Your task to perform on an android device: open app "Move to iOS" (install if not already installed) Image 0: 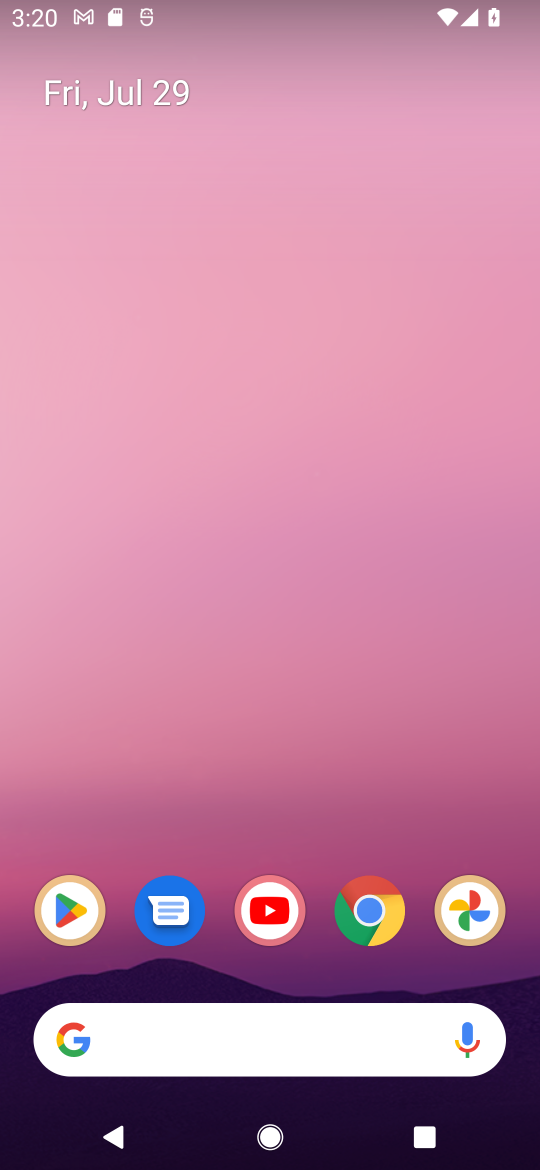
Step 0: drag from (287, 957) to (230, 213)
Your task to perform on an android device: open app "Move to iOS" (install if not already installed) Image 1: 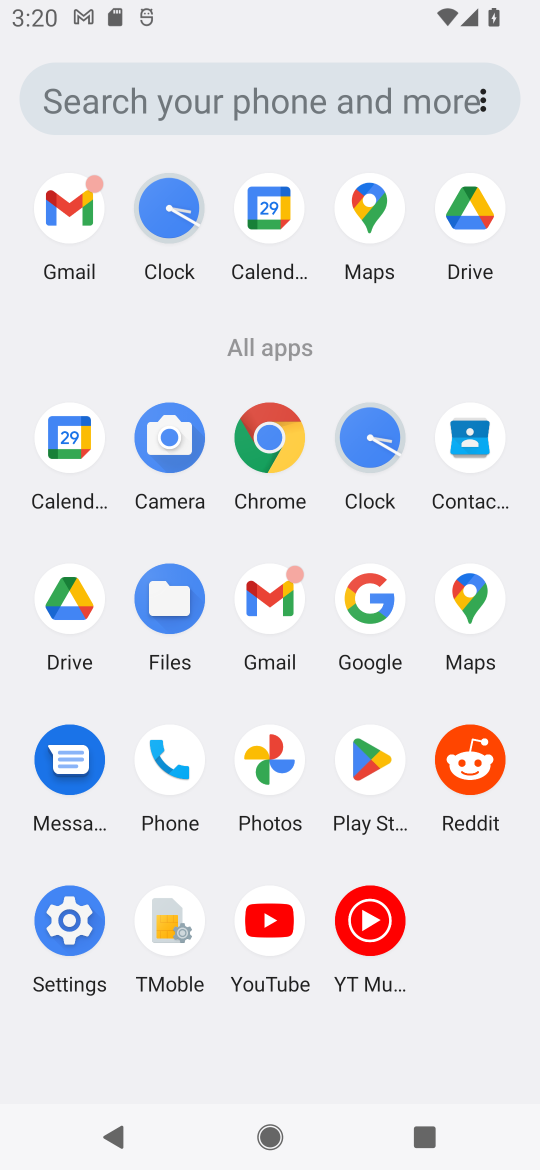
Step 1: click (378, 765)
Your task to perform on an android device: open app "Move to iOS" (install if not already installed) Image 2: 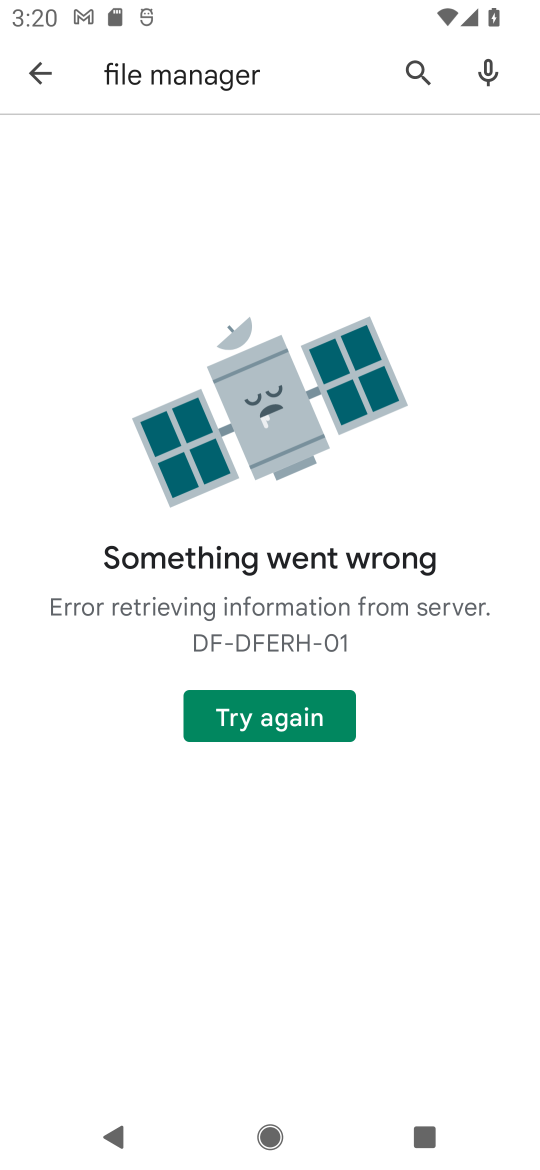
Step 2: press back button
Your task to perform on an android device: open app "Move to iOS" (install if not already installed) Image 3: 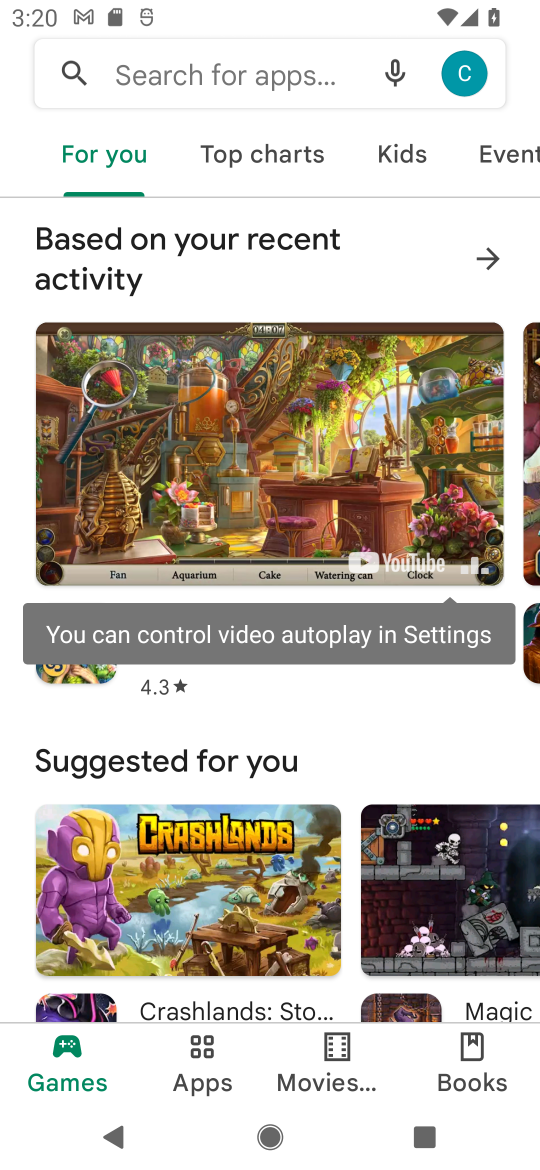
Step 3: click (156, 76)
Your task to perform on an android device: open app "Move to iOS" (install if not already installed) Image 4: 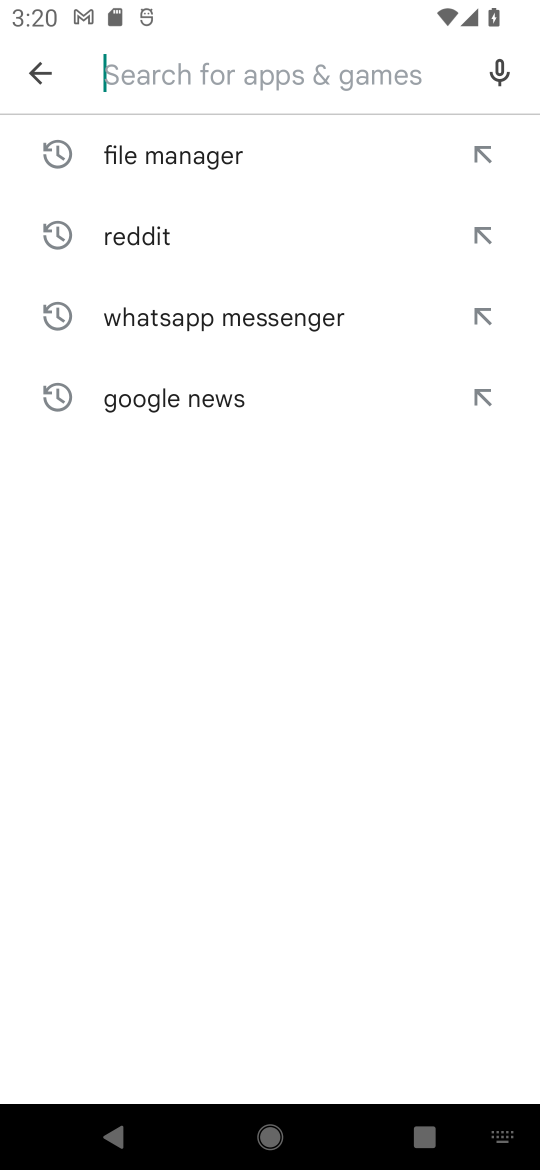
Step 4: type "Move to iOS"
Your task to perform on an android device: open app "Move to iOS" (install if not already installed) Image 5: 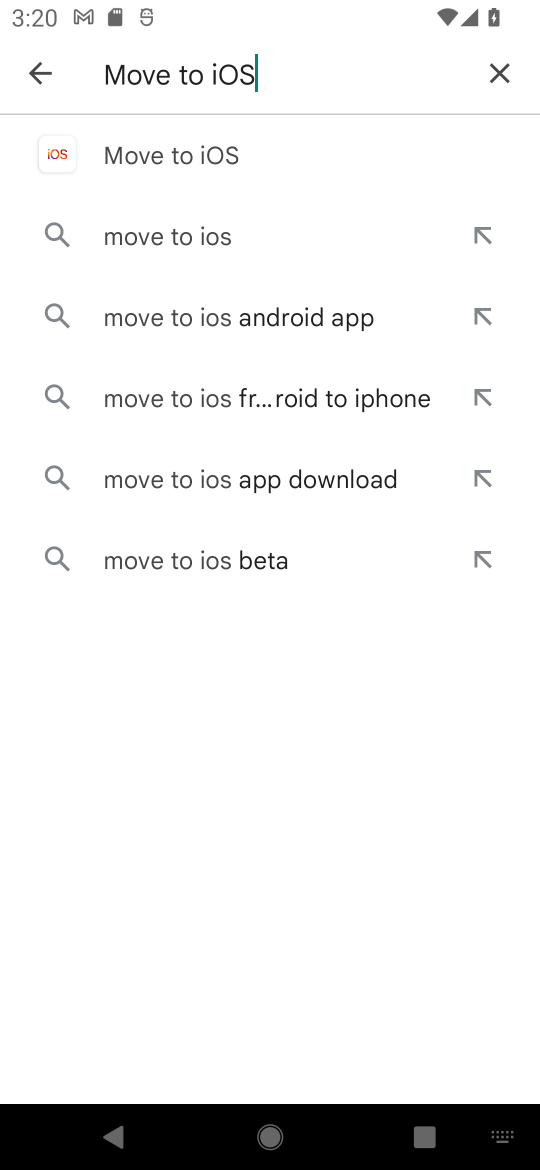
Step 5: click (228, 162)
Your task to perform on an android device: open app "Move to iOS" (install if not already installed) Image 6: 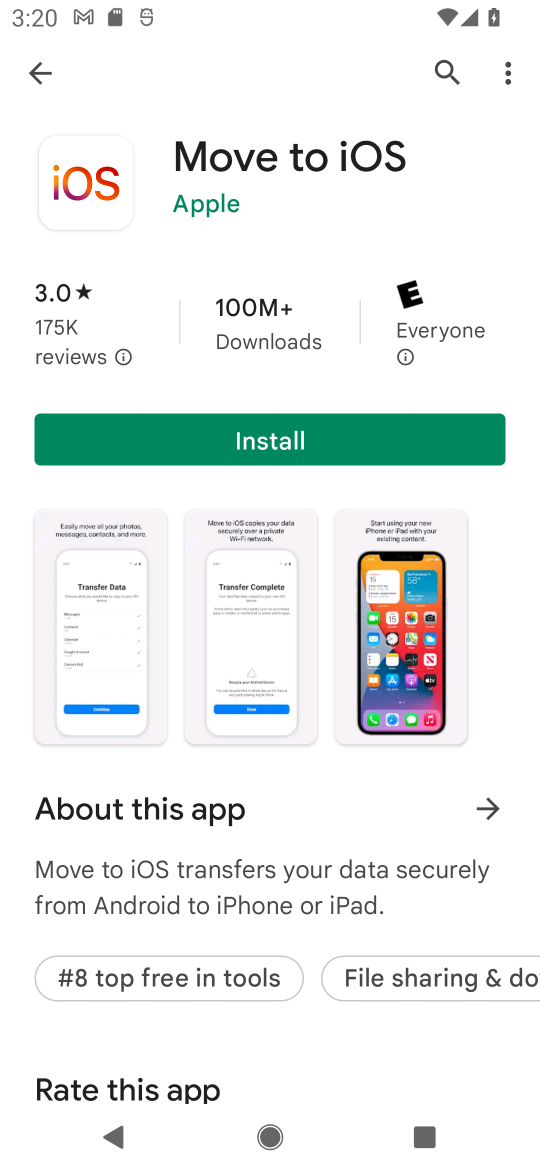
Step 6: click (341, 448)
Your task to perform on an android device: open app "Move to iOS" (install if not already installed) Image 7: 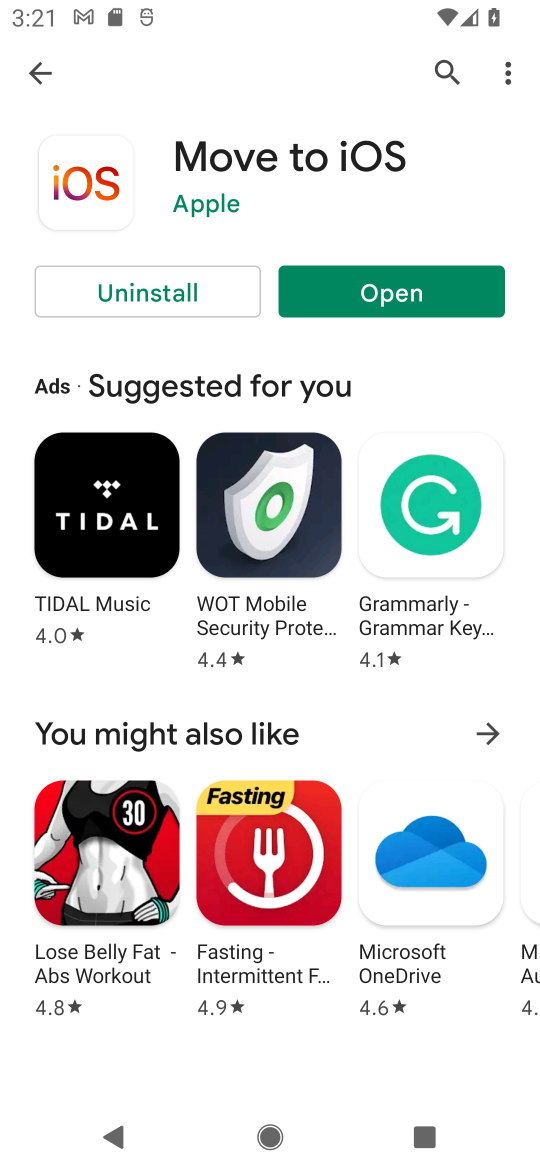
Step 7: click (345, 280)
Your task to perform on an android device: open app "Move to iOS" (install if not already installed) Image 8: 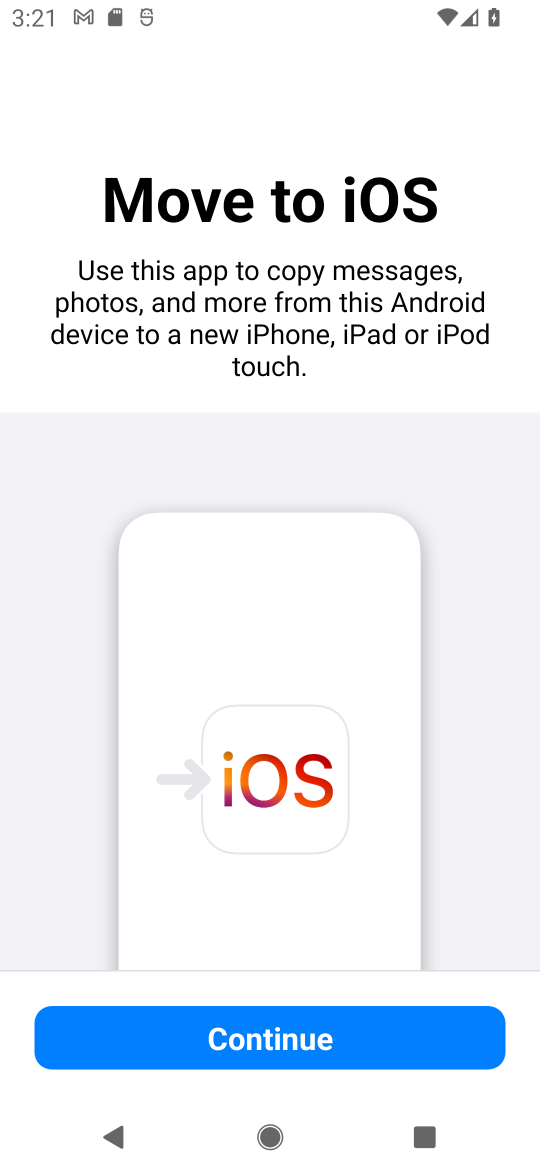
Step 8: task complete